Your task to perform on an android device: Show me productivity apps on the Play Store Image 0: 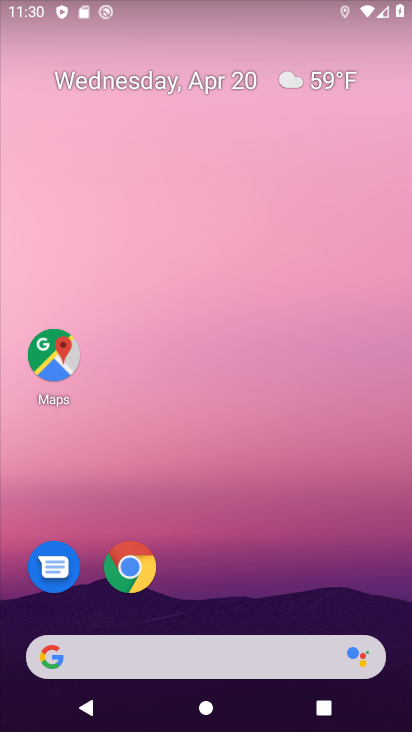
Step 0: drag from (293, 590) to (215, 162)
Your task to perform on an android device: Show me productivity apps on the Play Store Image 1: 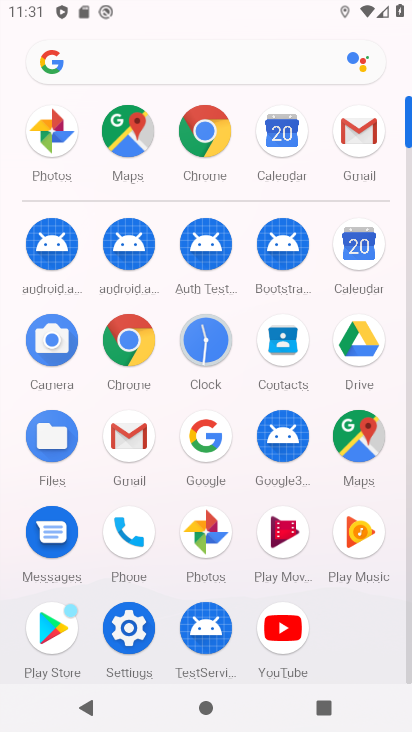
Step 1: click (52, 614)
Your task to perform on an android device: Show me productivity apps on the Play Store Image 2: 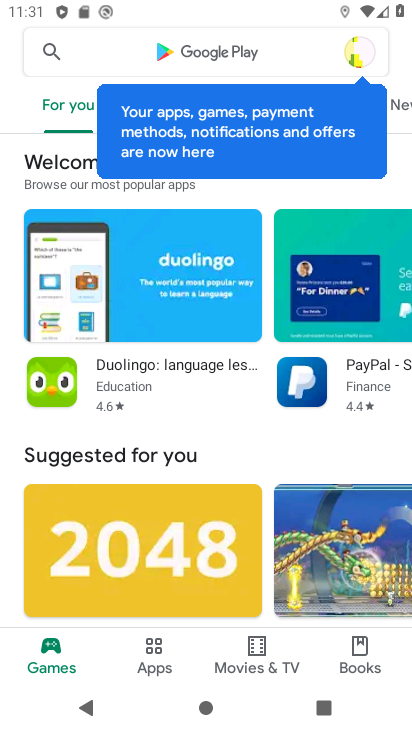
Step 2: click (140, 668)
Your task to perform on an android device: Show me productivity apps on the Play Store Image 3: 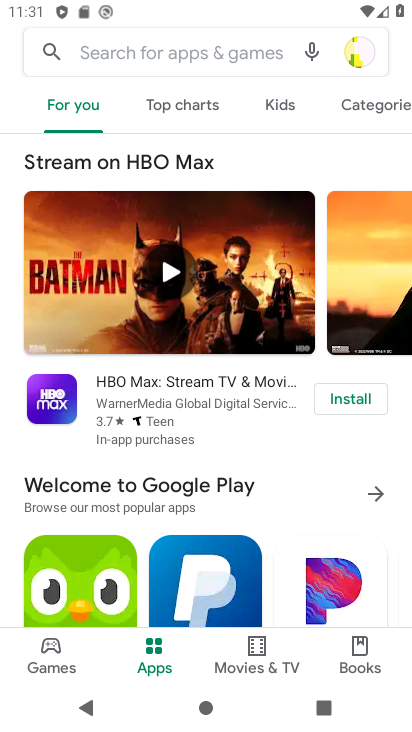
Step 3: click (381, 95)
Your task to perform on an android device: Show me productivity apps on the Play Store Image 4: 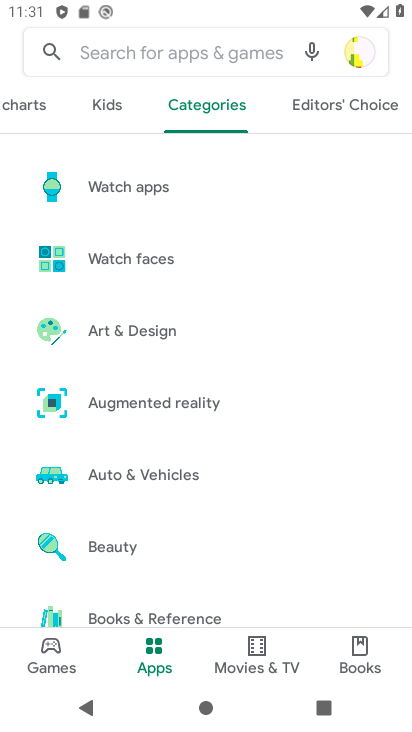
Step 4: drag from (158, 529) to (156, 388)
Your task to perform on an android device: Show me productivity apps on the Play Store Image 5: 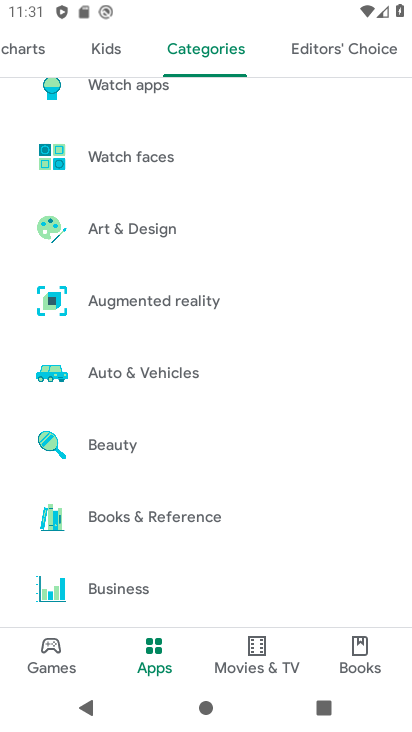
Step 5: drag from (206, 568) to (186, 477)
Your task to perform on an android device: Show me productivity apps on the Play Store Image 6: 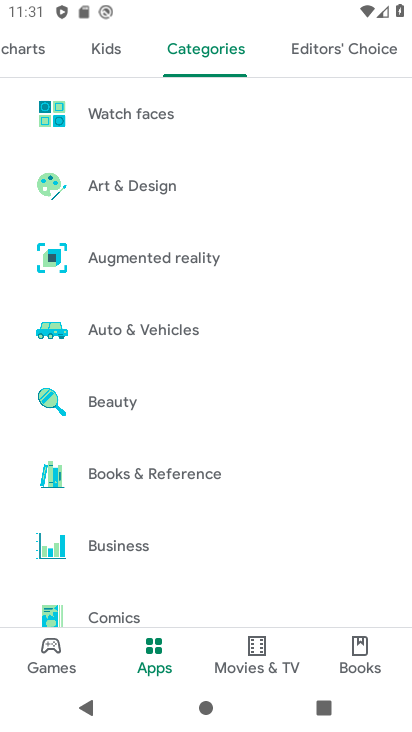
Step 6: drag from (252, 514) to (223, 350)
Your task to perform on an android device: Show me productivity apps on the Play Store Image 7: 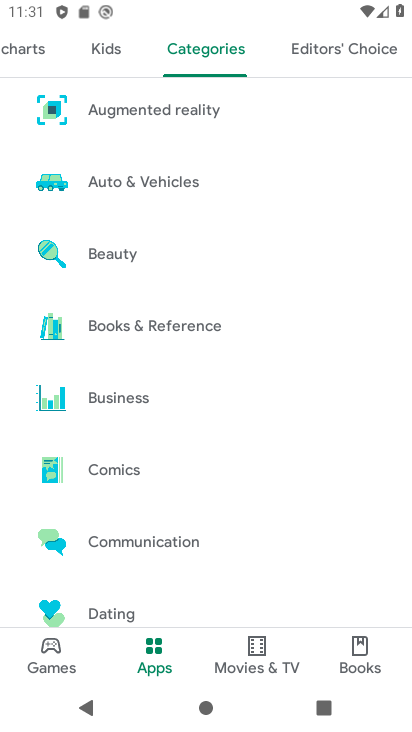
Step 7: drag from (189, 454) to (176, 237)
Your task to perform on an android device: Show me productivity apps on the Play Store Image 8: 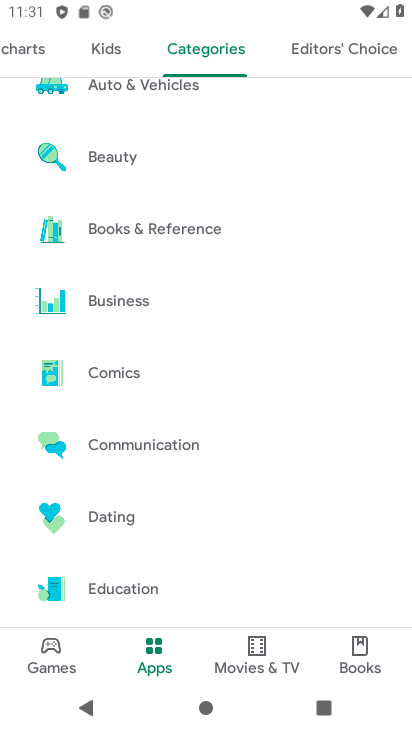
Step 8: drag from (167, 474) to (169, 257)
Your task to perform on an android device: Show me productivity apps on the Play Store Image 9: 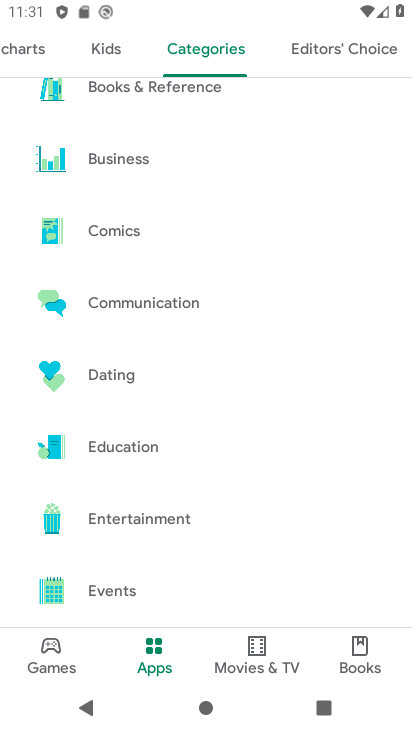
Step 9: drag from (205, 540) to (205, 420)
Your task to perform on an android device: Show me productivity apps on the Play Store Image 10: 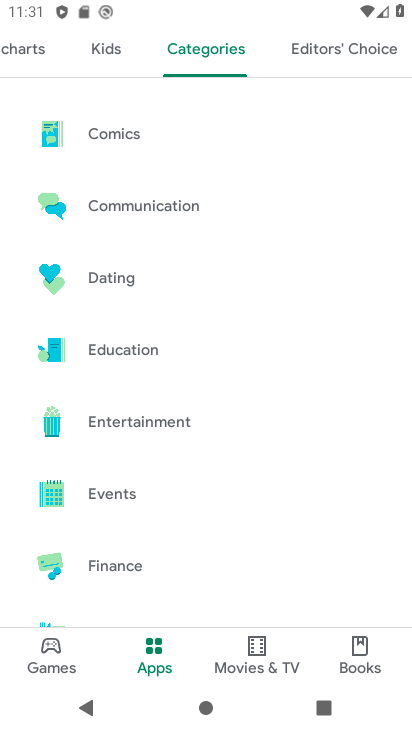
Step 10: drag from (192, 538) to (195, 383)
Your task to perform on an android device: Show me productivity apps on the Play Store Image 11: 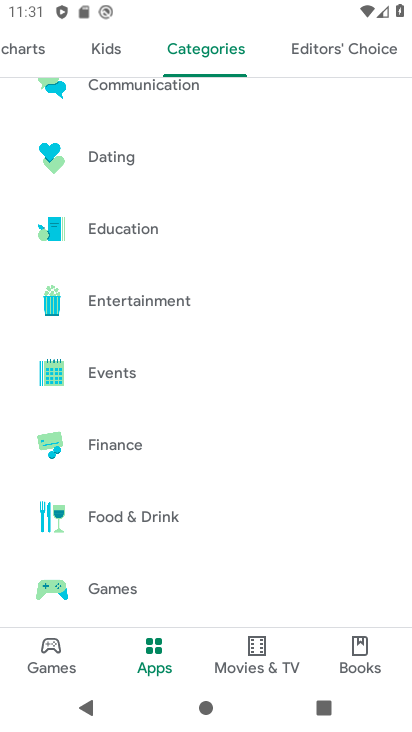
Step 11: drag from (195, 486) to (186, 365)
Your task to perform on an android device: Show me productivity apps on the Play Store Image 12: 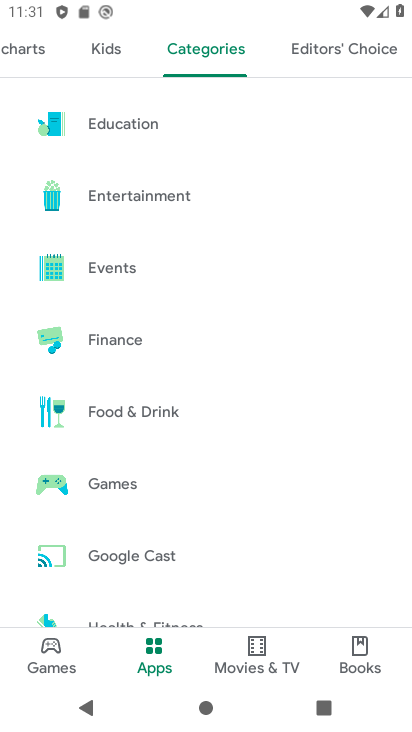
Step 12: drag from (171, 501) to (178, 390)
Your task to perform on an android device: Show me productivity apps on the Play Store Image 13: 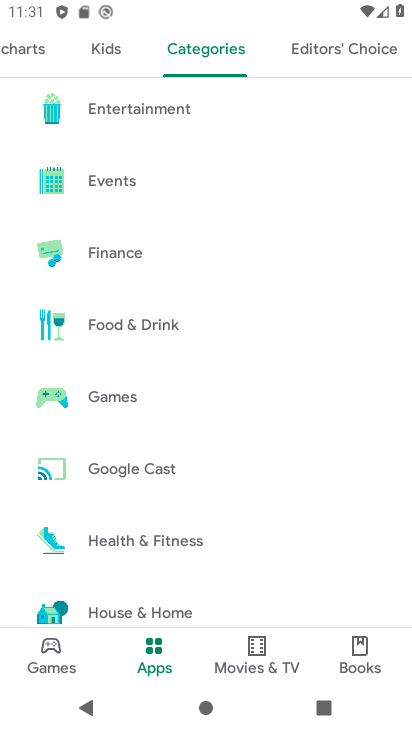
Step 13: drag from (176, 442) to (164, 367)
Your task to perform on an android device: Show me productivity apps on the Play Store Image 14: 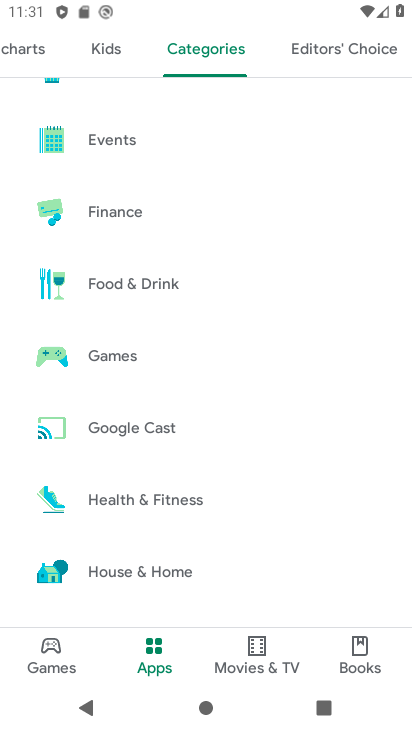
Step 14: drag from (194, 474) to (175, 375)
Your task to perform on an android device: Show me productivity apps on the Play Store Image 15: 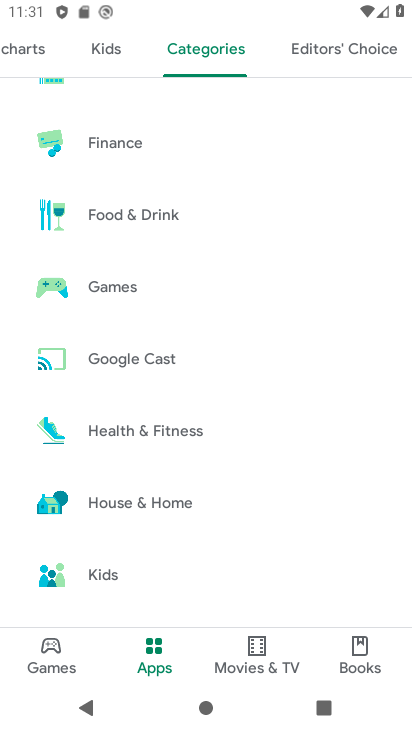
Step 15: drag from (157, 484) to (141, 399)
Your task to perform on an android device: Show me productivity apps on the Play Store Image 16: 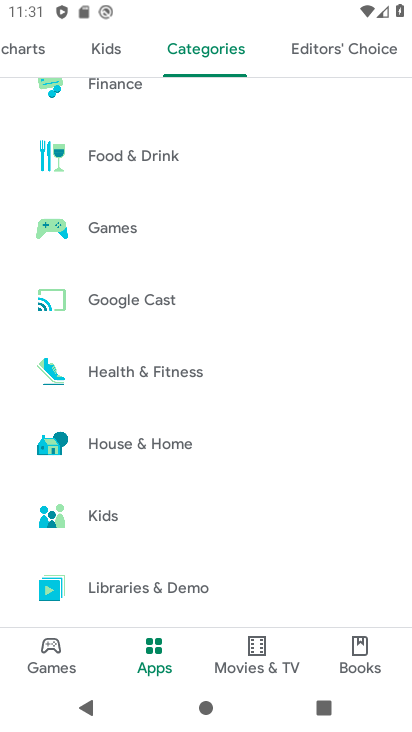
Step 16: drag from (145, 503) to (131, 418)
Your task to perform on an android device: Show me productivity apps on the Play Store Image 17: 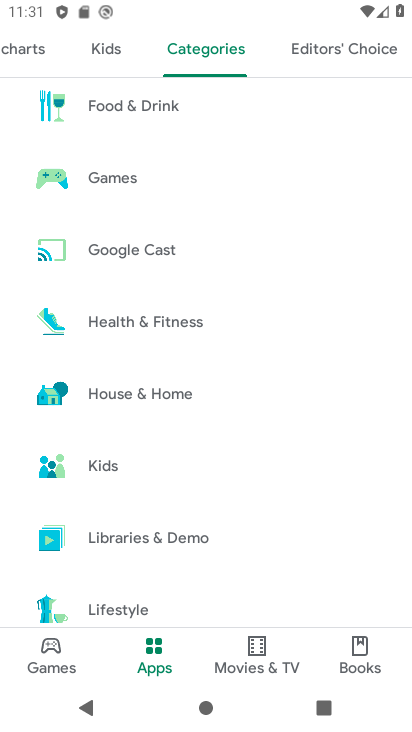
Step 17: drag from (152, 499) to (144, 414)
Your task to perform on an android device: Show me productivity apps on the Play Store Image 18: 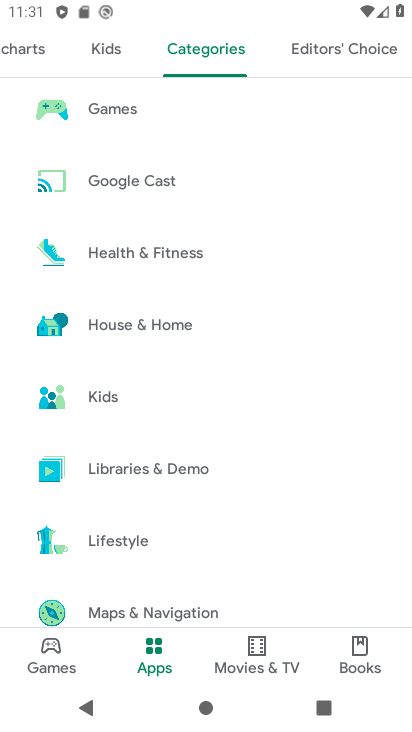
Step 18: drag from (167, 533) to (186, 381)
Your task to perform on an android device: Show me productivity apps on the Play Store Image 19: 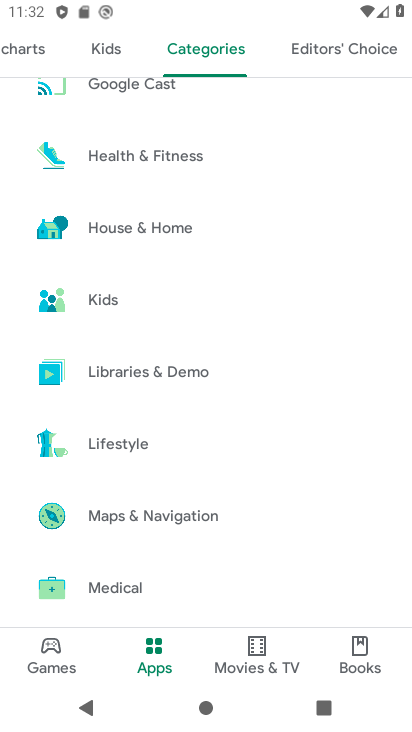
Step 19: drag from (185, 375) to (182, 305)
Your task to perform on an android device: Show me productivity apps on the Play Store Image 20: 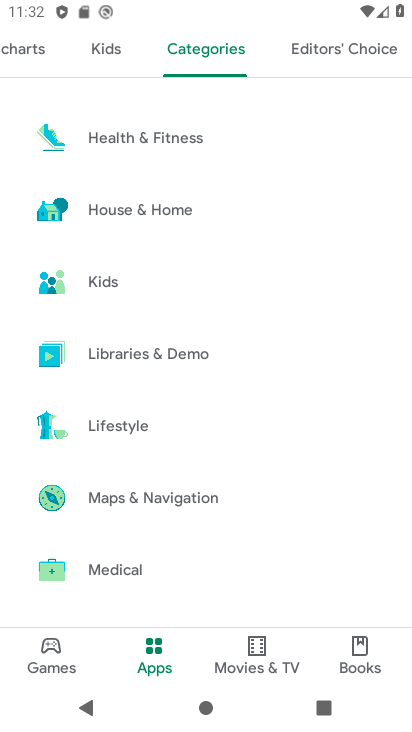
Step 20: drag from (215, 473) to (200, 361)
Your task to perform on an android device: Show me productivity apps on the Play Store Image 21: 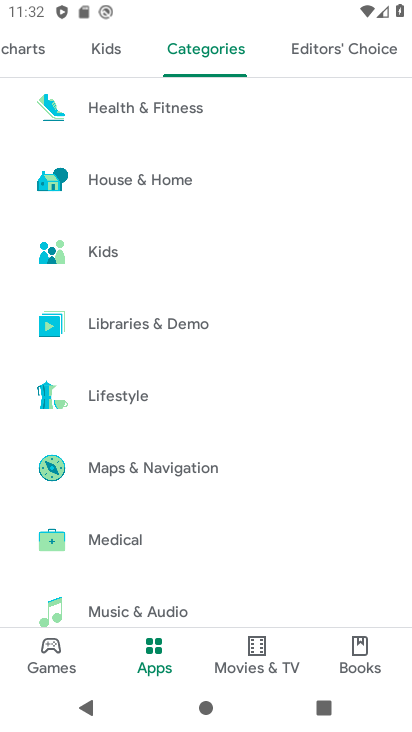
Step 21: drag from (191, 582) to (183, 388)
Your task to perform on an android device: Show me productivity apps on the Play Store Image 22: 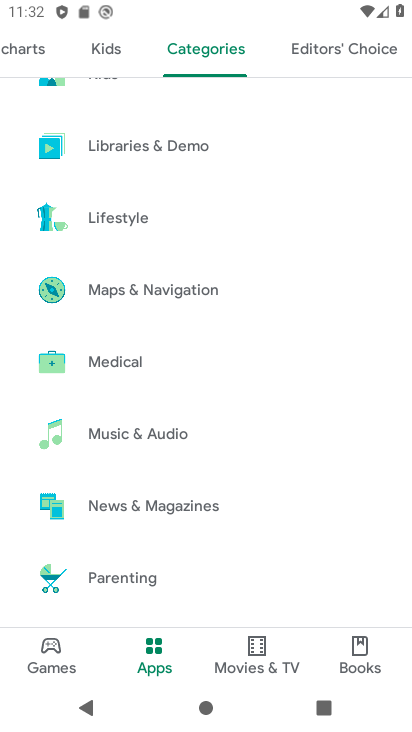
Step 22: drag from (172, 537) to (179, 329)
Your task to perform on an android device: Show me productivity apps on the Play Store Image 23: 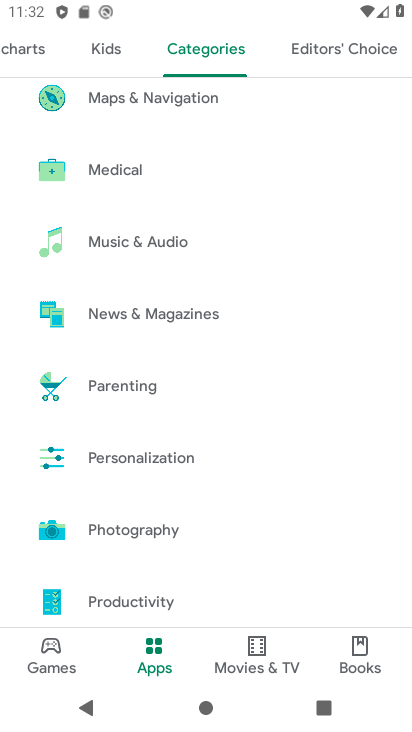
Step 23: click (157, 592)
Your task to perform on an android device: Show me productivity apps on the Play Store Image 24: 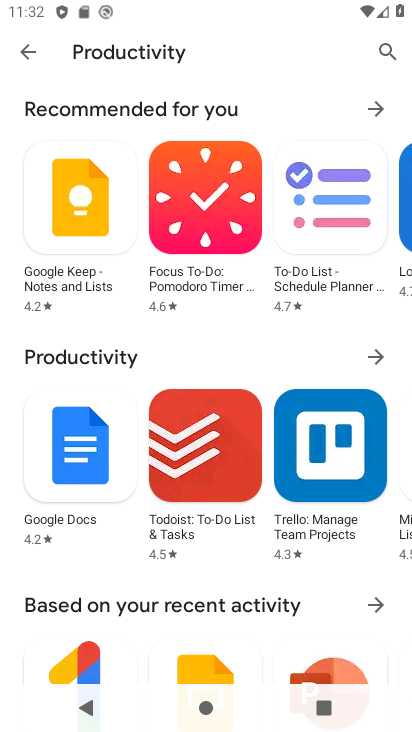
Step 24: task complete